Your task to perform on an android device: turn on the 12-hour format for clock Image 0: 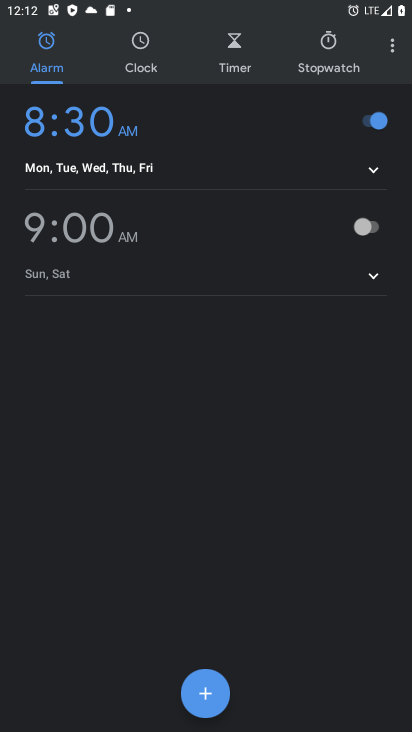
Step 0: press home button
Your task to perform on an android device: turn on the 12-hour format for clock Image 1: 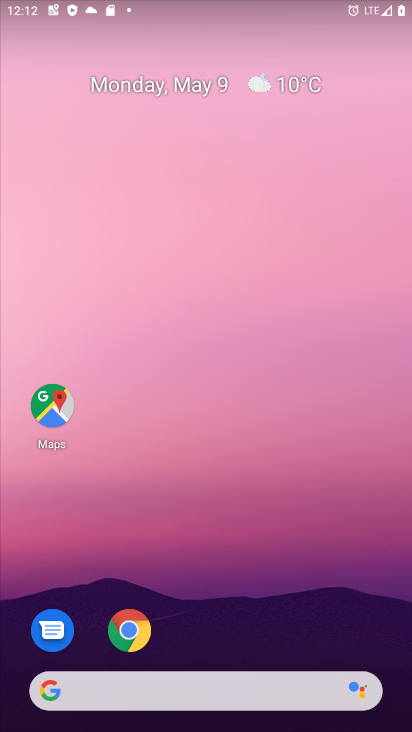
Step 1: drag from (350, 636) to (264, 41)
Your task to perform on an android device: turn on the 12-hour format for clock Image 2: 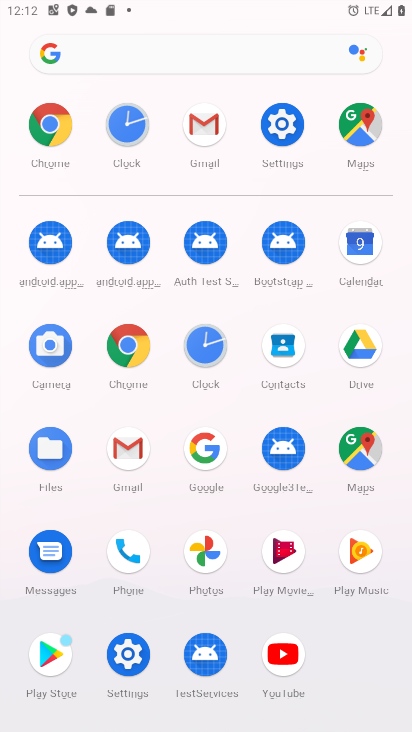
Step 2: click (132, 125)
Your task to perform on an android device: turn on the 12-hour format for clock Image 3: 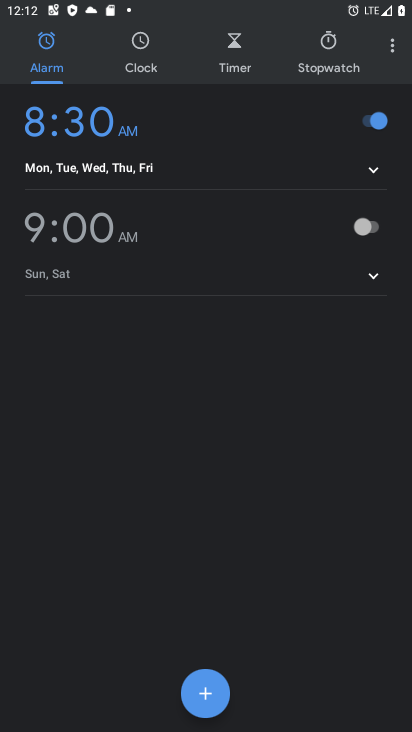
Step 3: click (388, 42)
Your task to perform on an android device: turn on the 12-hour format for clock Image 4: 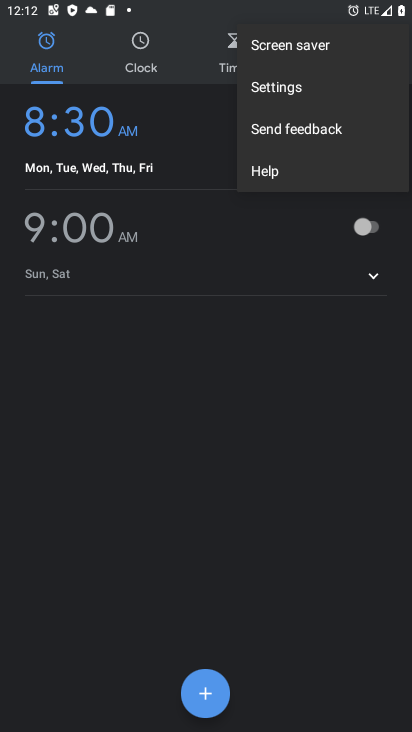
Step 4: click (301, 97)
Your task to perform on an android device: turn on the 12-hour format for clock Image 5: 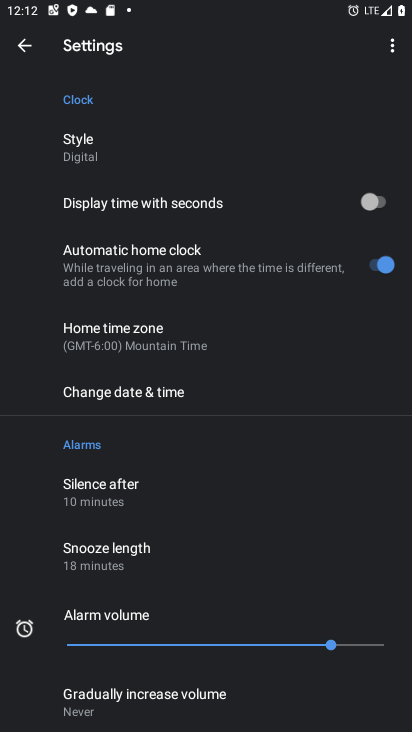
Step 5: click (195, 383)
Your task to perform on an android device: turn on the 12-hour format for clock Image 6: 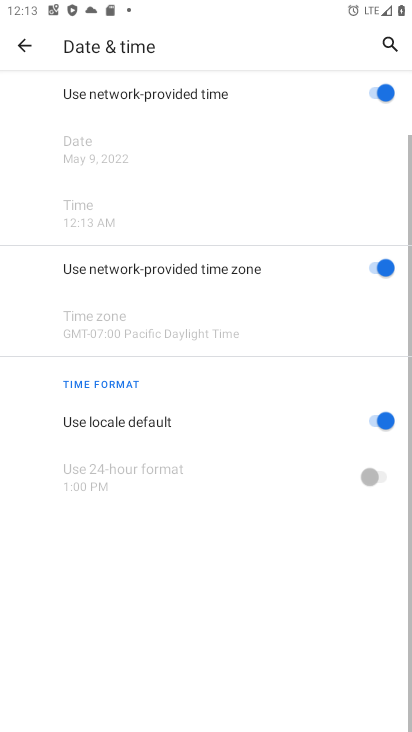
Step 6: task complete